Your task to perform on an android device: check out phone information Image 0: 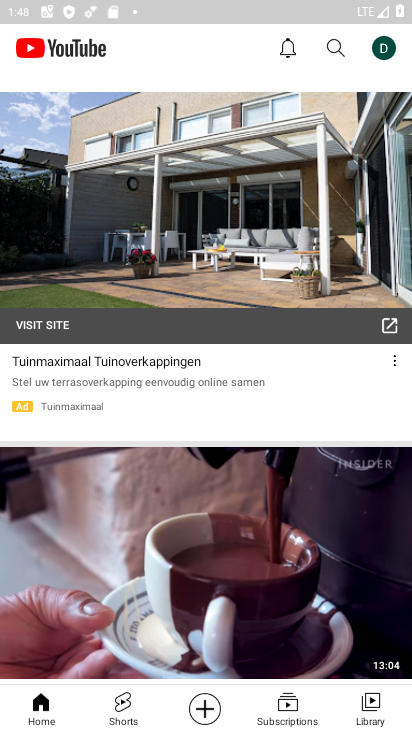
Step 0: press home button
Your task to perform on an android device: check out phone information Image 1: 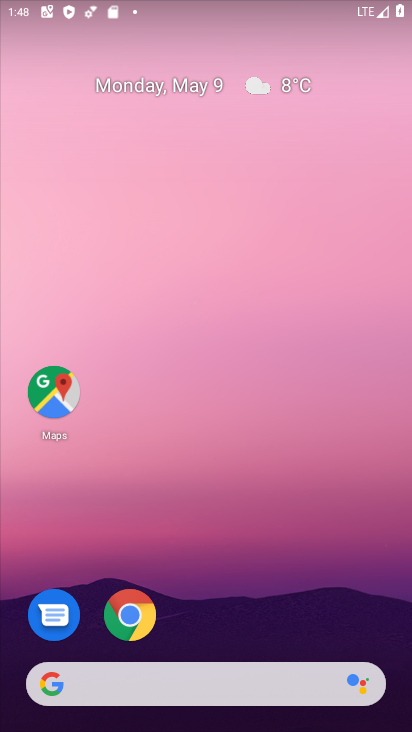
Step 1: drag from (391, 630) to (308, 25)
Your task to perform on an android device: check out phone information Image 2: 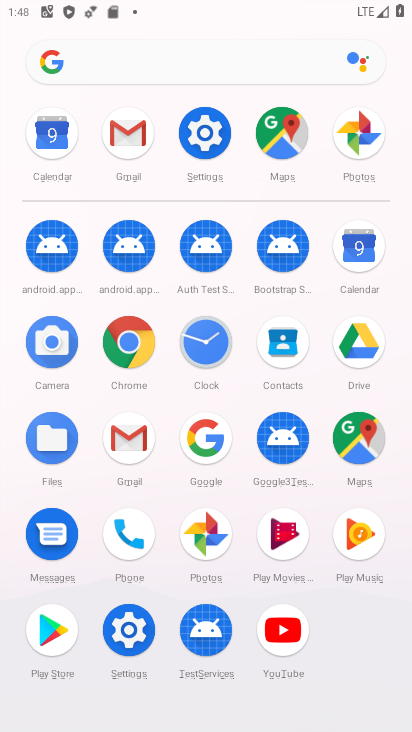
Step 2: click (129, 629)
Your task to perform on an android device: check out phone information Image 3: 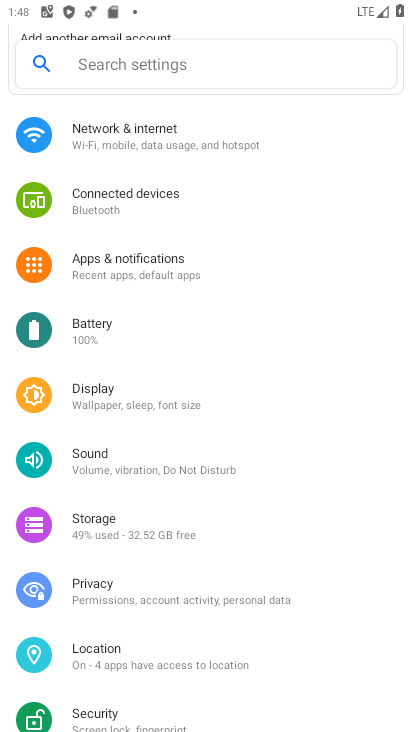
Step 3: drag from (129, 629) to (341, 163)
Your task to perform on an android device: check out phone information Image 4: 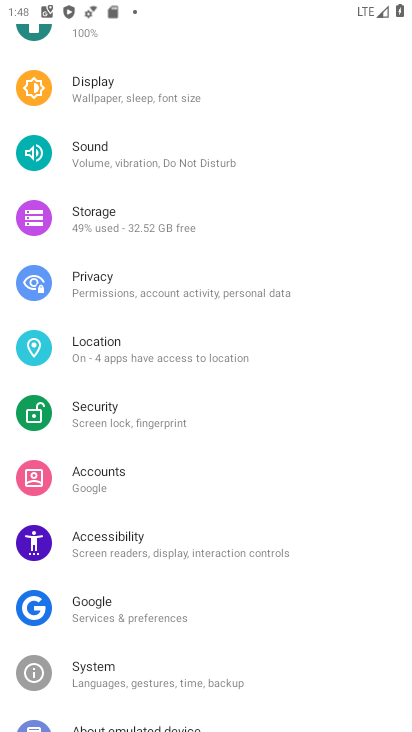
Step 4: drag from (194, 696) to (322, 260)
Your task to perform on an android device: check out phone information Image 5: 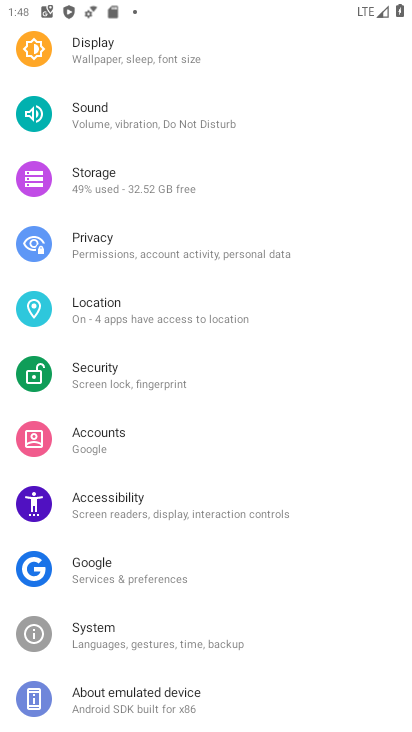
Step 5: click (122, 694)
Your task to perform on an android device: check out phone information Image 6: 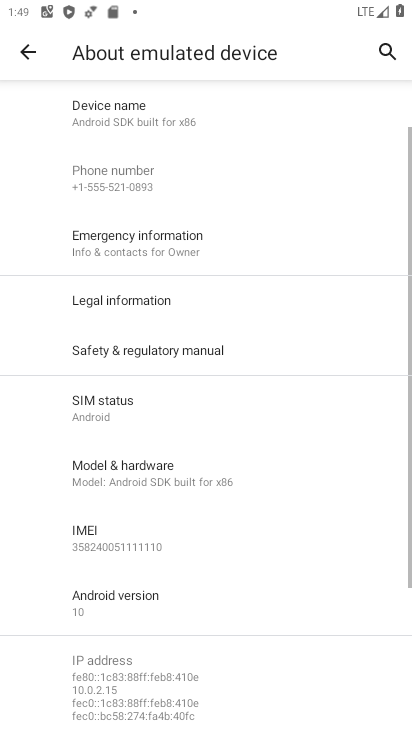
Step 6: task complete